Your task to perform on an android device: set the timer Image 0: 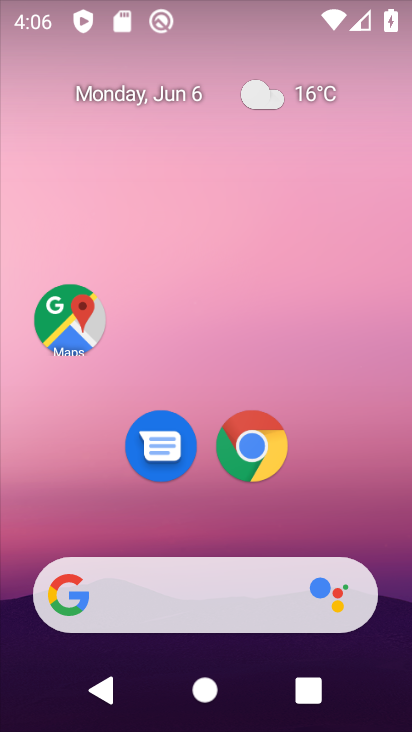
Step 0: drag from (131, 551) to (206, 146)
Your task to perform on an android device: set the timer Image 1: 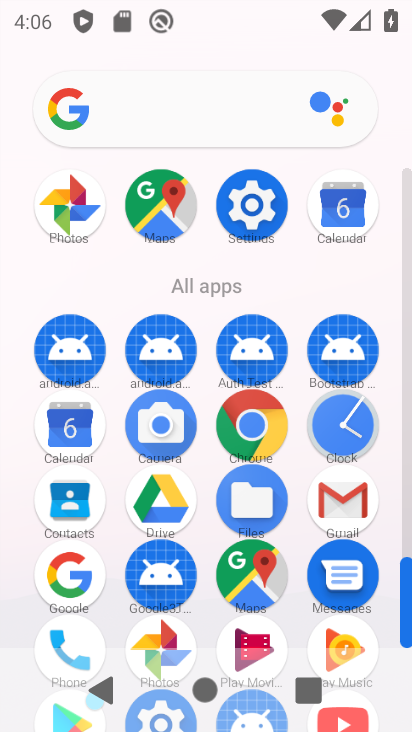
Step 1: click (338, 438)
Your task to perform on an android device: set the timer Image 2: 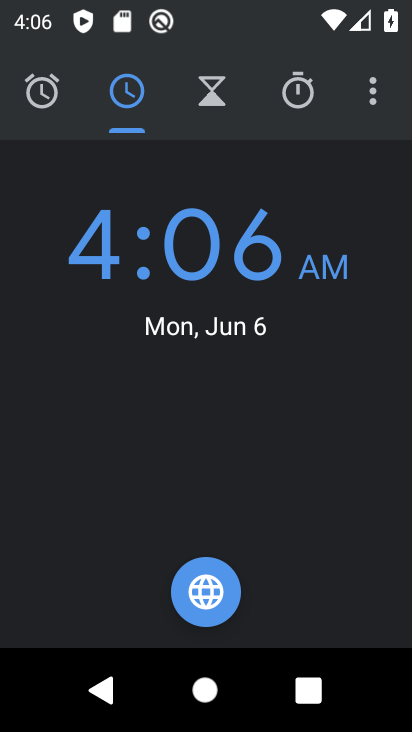
Step 2: click (230, 111)
Your task to perform on an android device: set the timer Image 3: 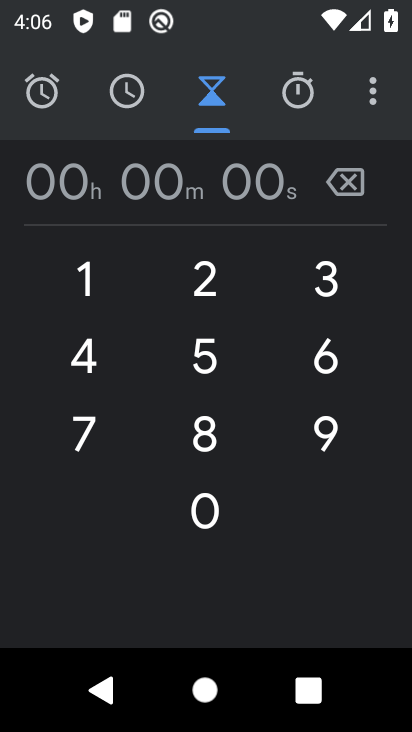
Step 3: click (217, 447)
Your task to perform on an android device: set the timer Image 4: 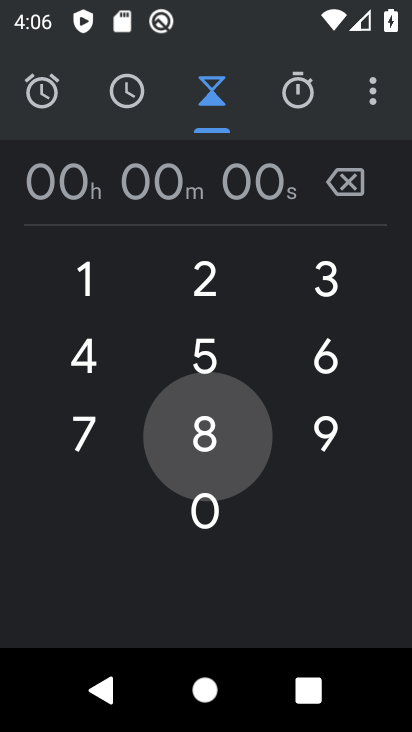
Step 4: click (205, 497)
Your task to perform on an android device: set the timer Image 5: 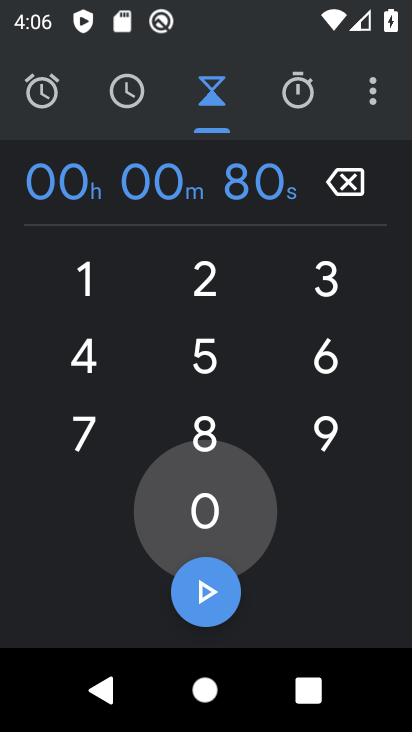
Step 5: click (208, 439)
Your task to perform on an android device: set the timer Image 6: 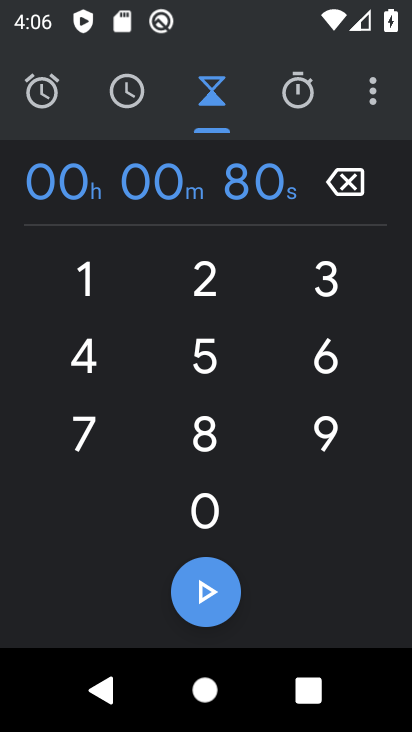
Step 6: click (197, 510)
Your task to perform on an android device: set the timer Image 7: 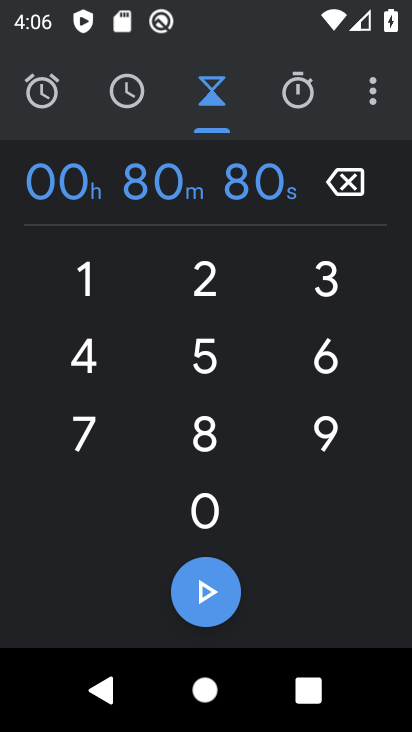
Step 7: click (211, 593)
Your task to perform on an android device: set the timer Image 8: 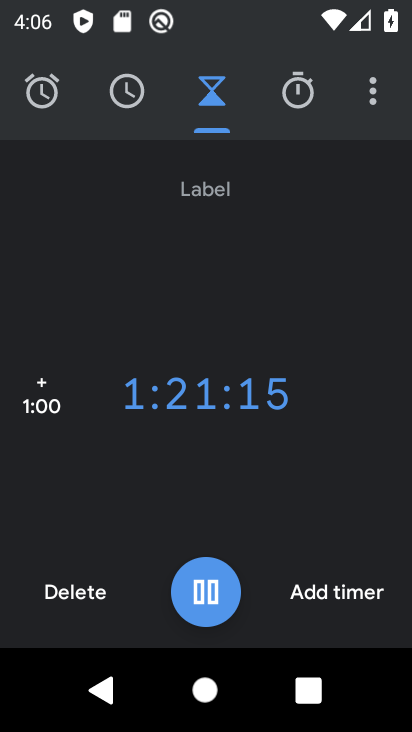
Step 8: task complete